Your task to perform on an android device: turn pop-ups on in chrome Image 0: 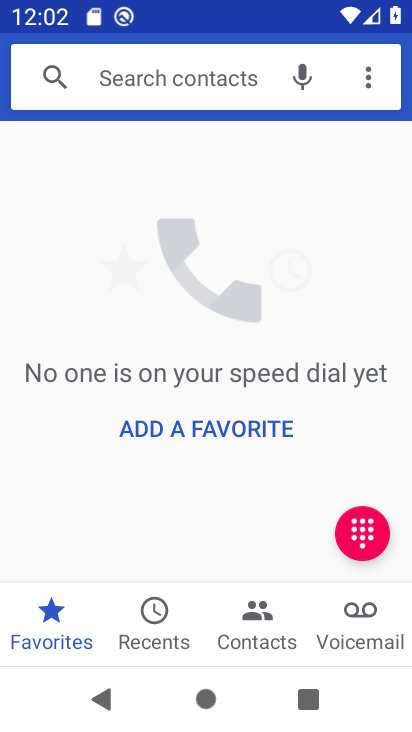
Step 0: press back button
Your task to perform on an android device: turn pop-ups on in chrome Image 1: 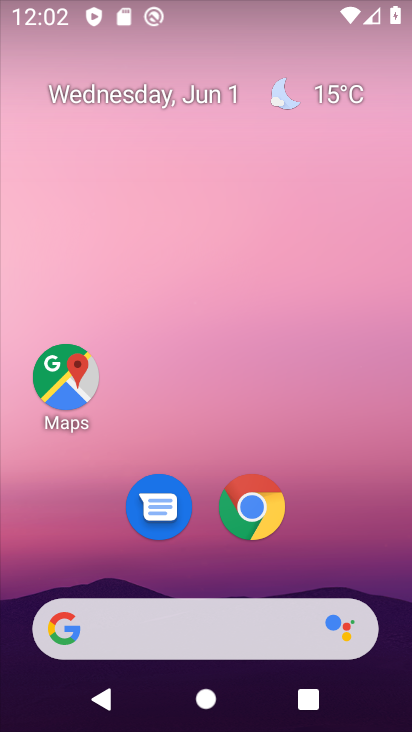
Step 1: click (251, 507)
Your task to perform on an android device: turn pop-ups on in chrome Image 2: 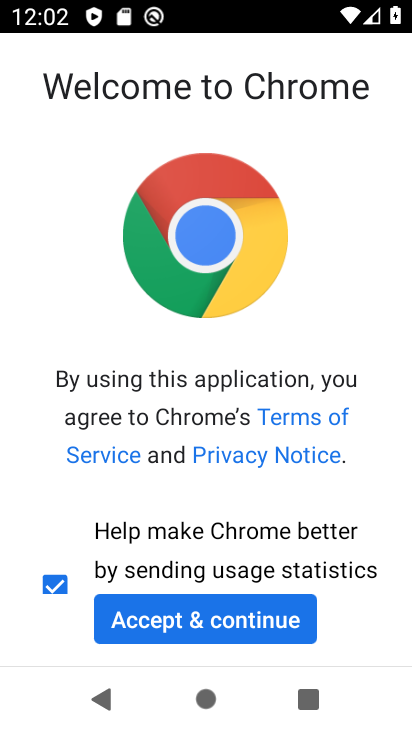
Step 2: click (203, 626)
Your task to perform on an android device: turn pop-ups on in chrome Image 3: 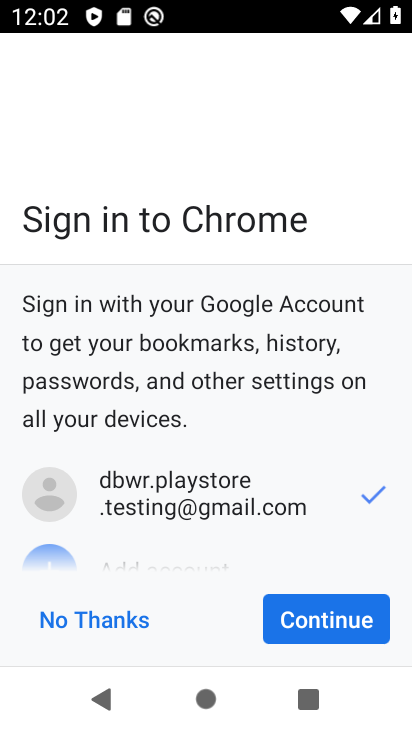
Step 3: click (302, 620)
Your task to perform on an android device: turn pop-ups on in chrome Image 4: 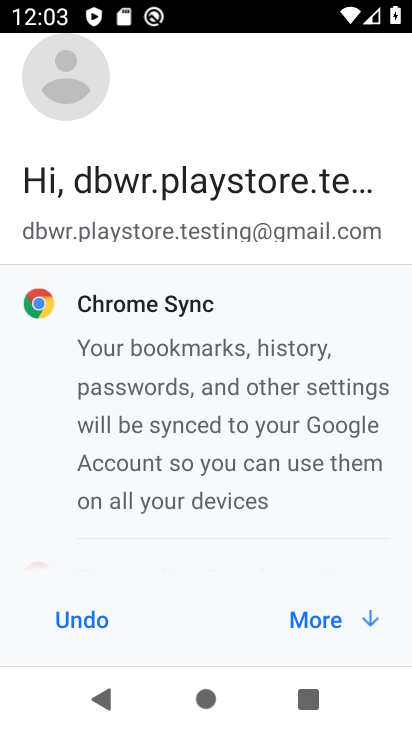
Step 4: click (316, 615)
Your task to perform on an android device: turn pop-ups on in chrome Image 5: 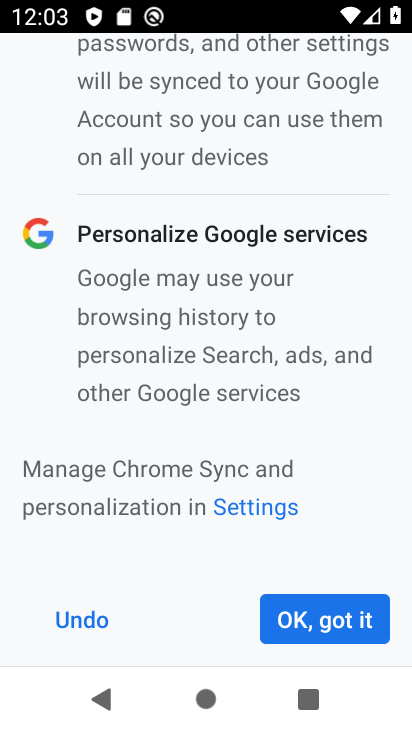
Step 5: click (316, 615)
Your task to perform on an android device: turn pop-ups on in chrome Image 6: 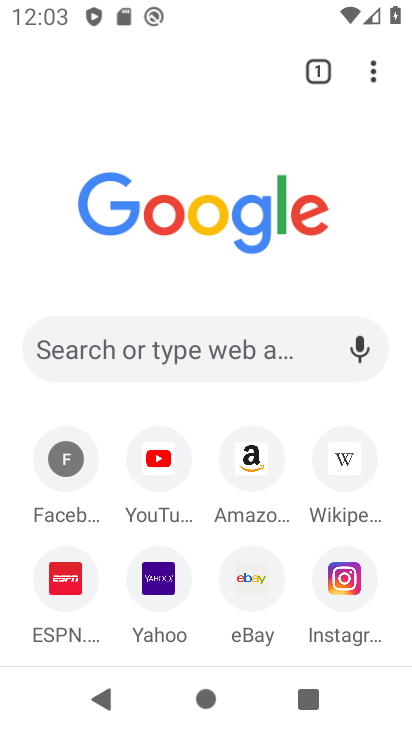
Step 6: click (372, 72)
Your task to perform on an android device: turn pop-ups on in chrome Image 7: 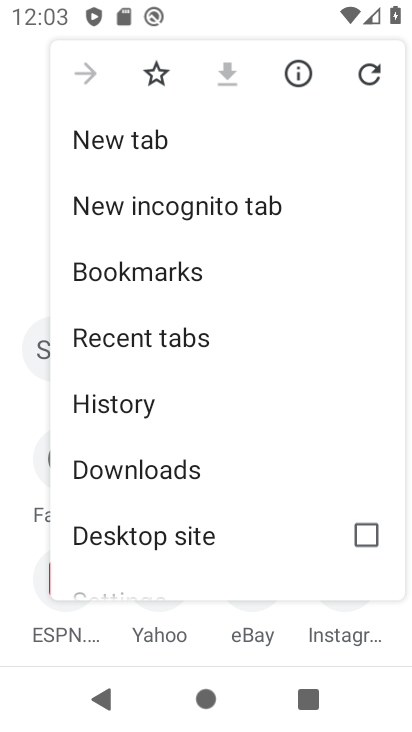
Step 7: drag from (163, 426) to (207, 341)
Your task to perform on an android device: turn pop-ups on in chrome Image 8: 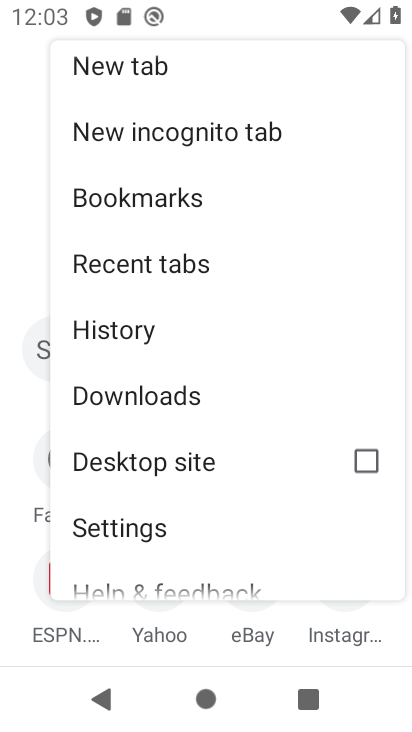
Step 8: click (146, 522)
Your task to perform on an android device: turn pop-ups on in chrome Image 9: 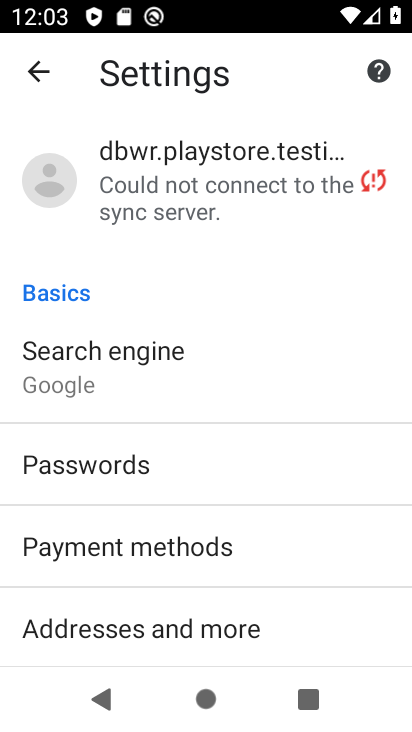
Step 9: drag from (185, 523) to (189, 421)
Your task to perform on an android device: turn pop-ups on in chrome Image 10: 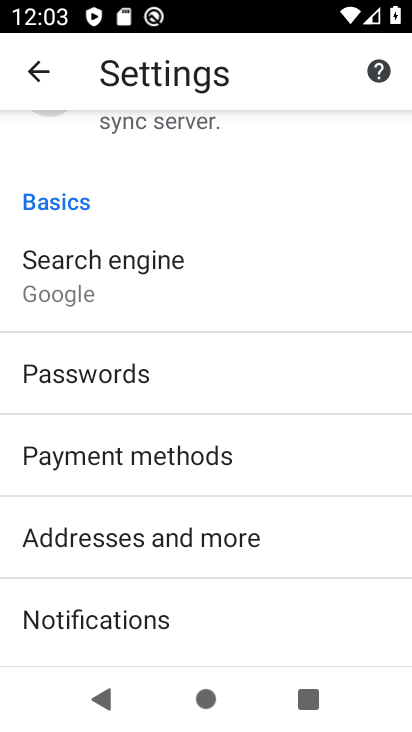
Step 10: drag from (176, 517) to (179, 460)
Your task to perform on an android device: turn pop-ups on in chrome Image 11: 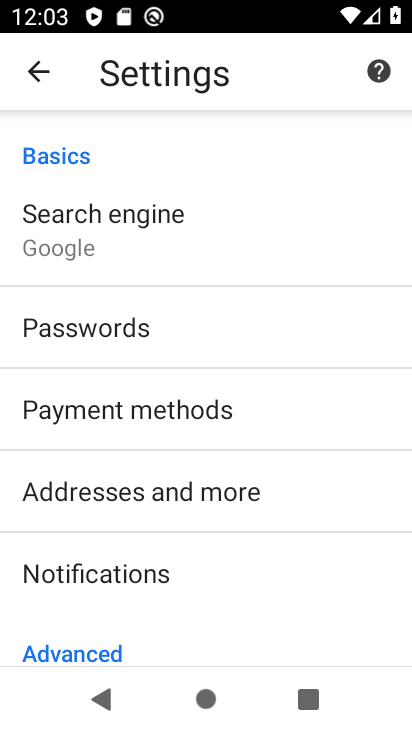
Step 11: drag from (165, 608) to (145, 481)
Your task to perform on an android device: turn pop-ups on in chrome Image 12: 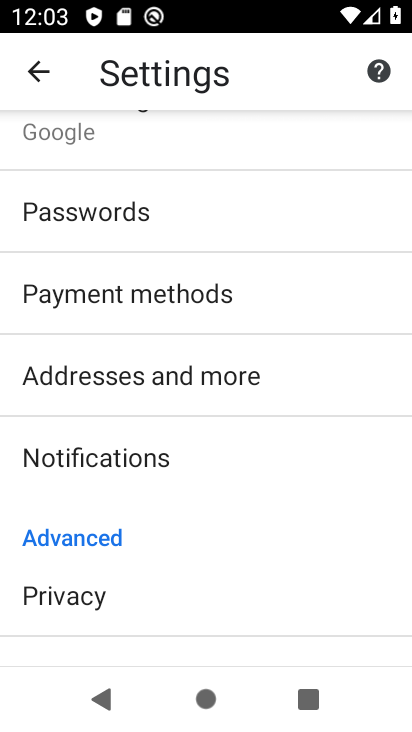
Step 12: drag from (158, 590) to (195, 461)
Your task to perform on an android device: turn pop-ups on in chrome Image 13: 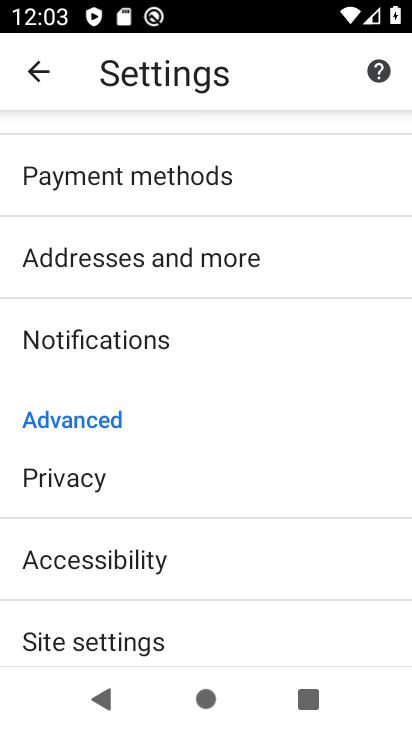
Step 13: drag from (194, 562) to (177, 470)
Your task to perform on an android device: turn pop-ups on in chrome Image 14: 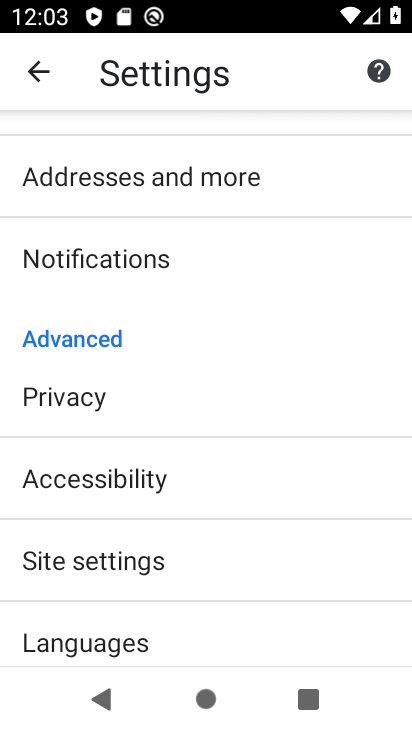
Step 14: click (134, 556)
Your task to perform on an android device: turn pop-ups on in chrome Image 15: 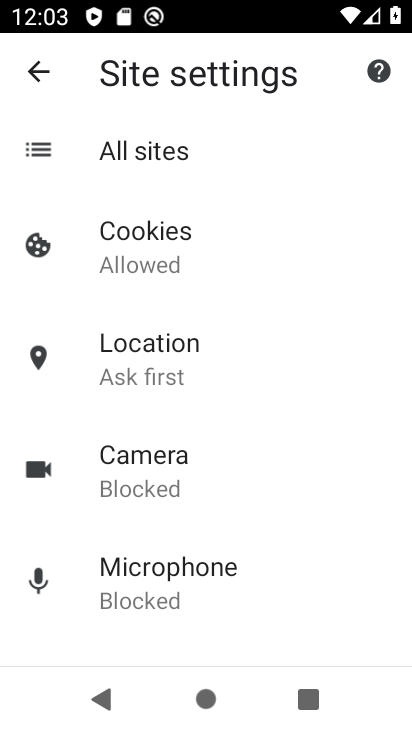
Step 15: drag from (162, 623) to (203, 502)
Your task to perform on an android device: turn pop-ups on in chrome Image 16: 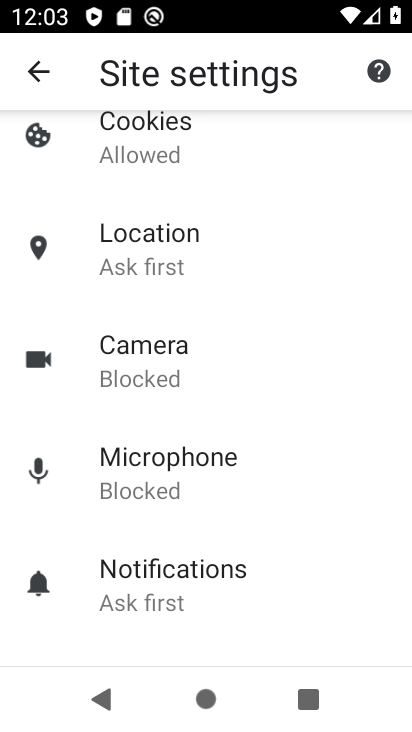
Step 16: drag from (167, 621) to (157, 521)
Your task to perform on an android device: turn pop-ups on in chrome Image 17: 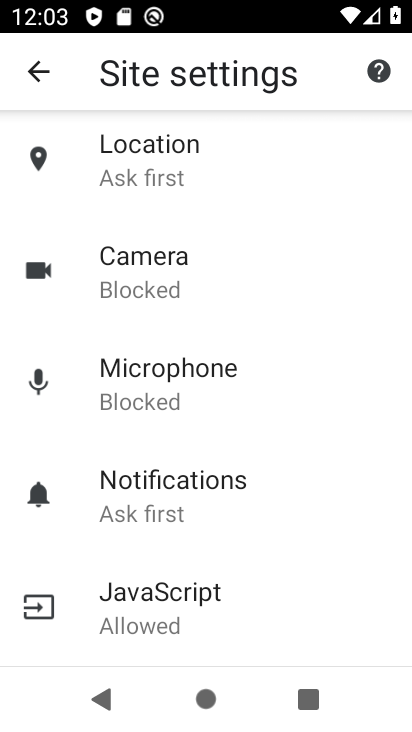
Step 17: drag from (196, 557) to (213, 395)
Your task to perform on an android device: turn pop-ups on in chrome Image 18: 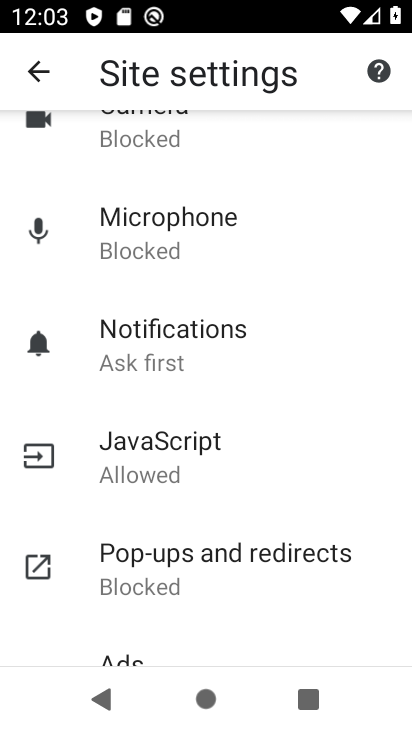
Step 18: click (194, 554)
Your task to perform on an android device: turn pop-ups on in chrome Image 19: 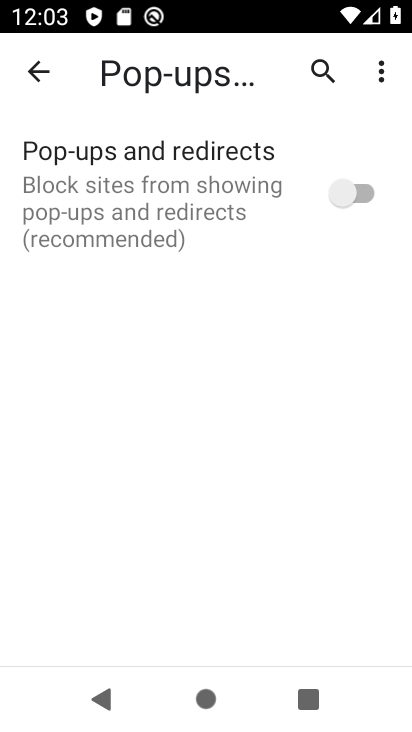
Step 19: click (341, 205)
Your task to perform on an android device: turn pop-ups on in chrome Image 20: 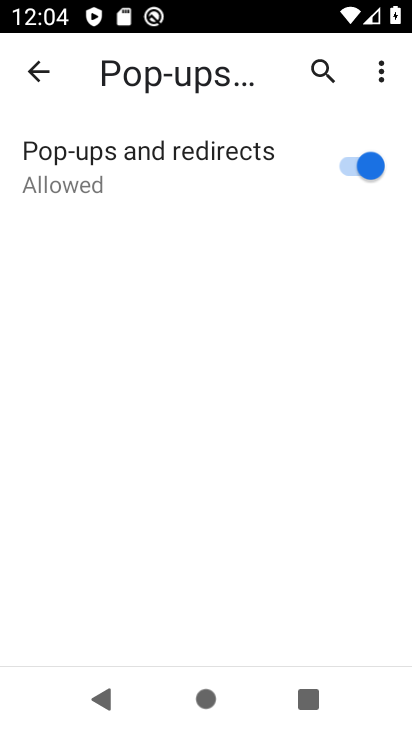
Step 20: task complete